Your task to perform on an android device: Open network settings Image 0: 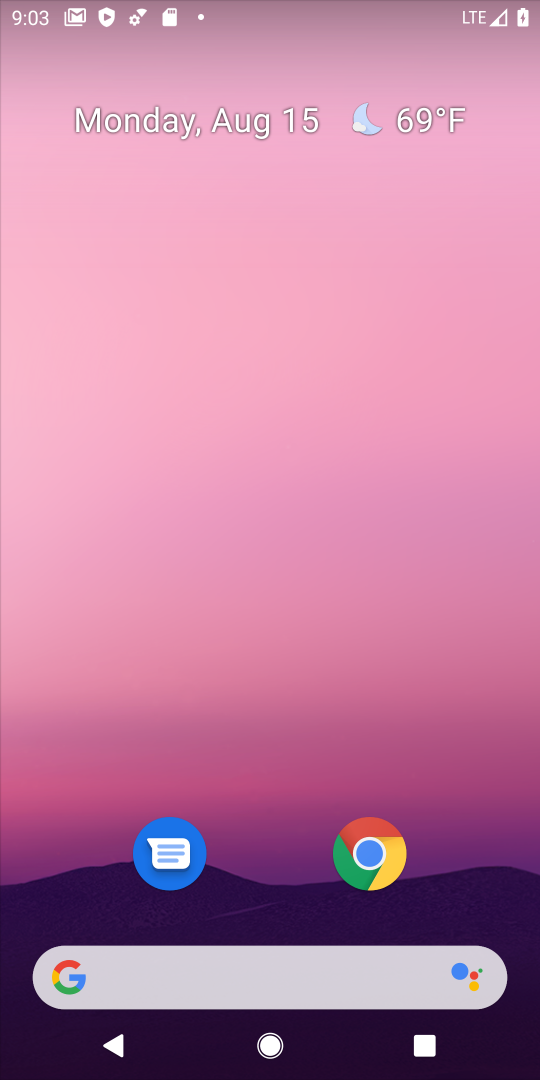
Step 0: drag from (338, 697) to (352, 647)
Your task to perform on an android device: Open network settings Image 1: 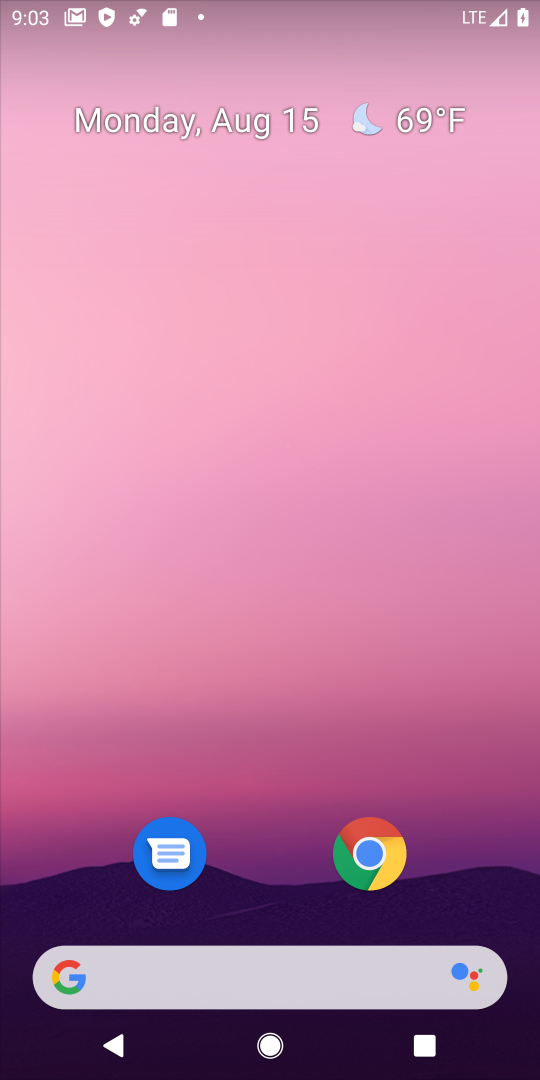
Step 1: drag from (166, 892) to (386, 131)
Your task to perform on an android device: Open network settings Image 2: 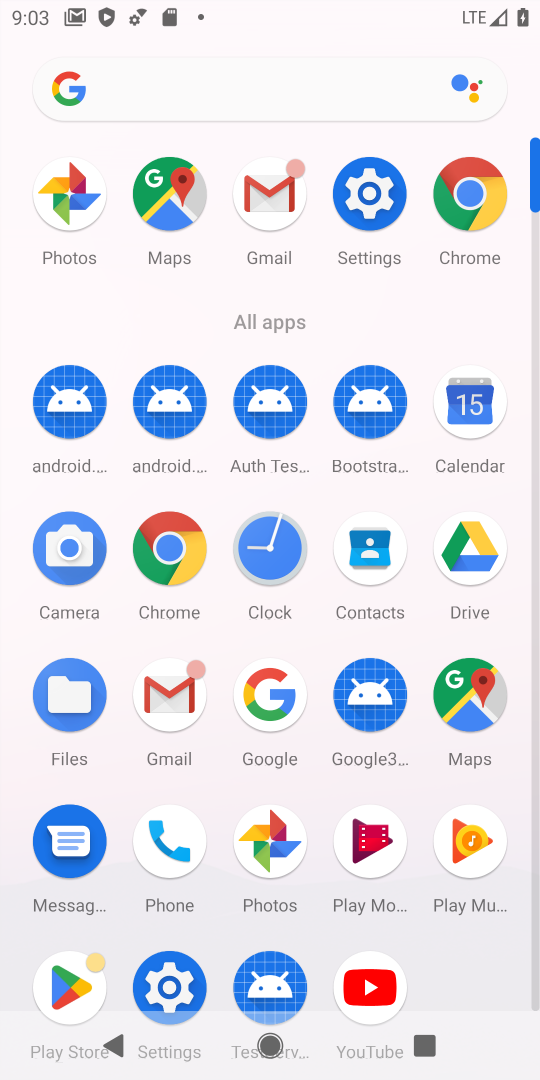
Step 2: drag from (365, 224) to (302, 166)
Your task to perform on an android device: Open network settings Image 3: 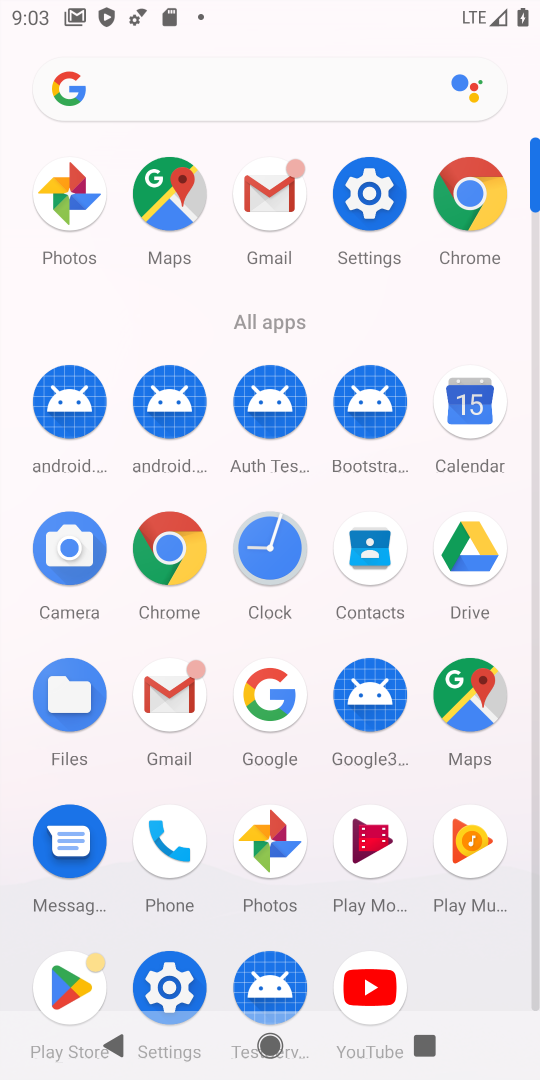
Step 3: click (387, 192)
Your task to perform on an android device: Open network settings Image 4: 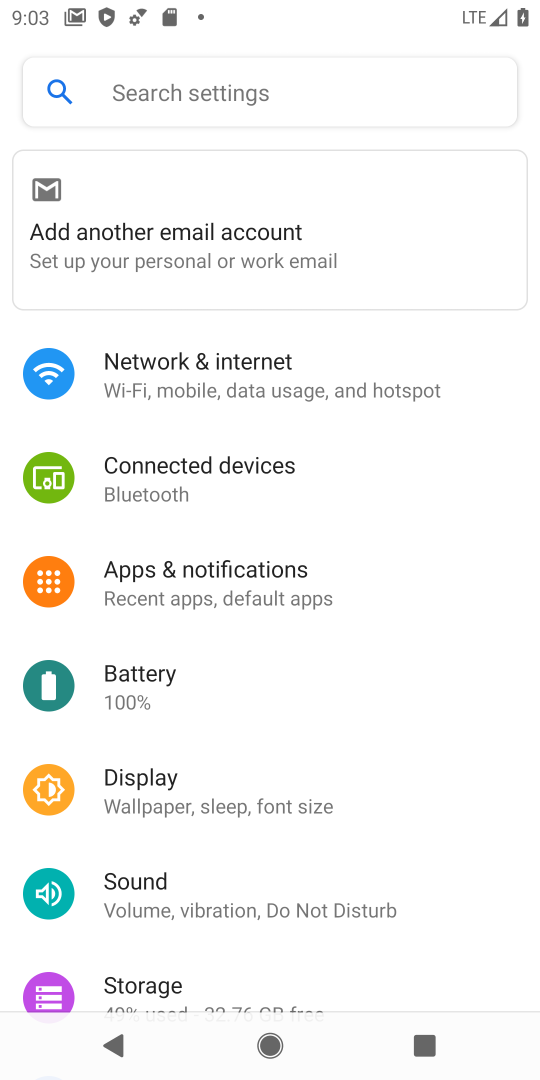
Step 4: click (85, 352)
Your task to perform on an android device: Open network settings Image 5: 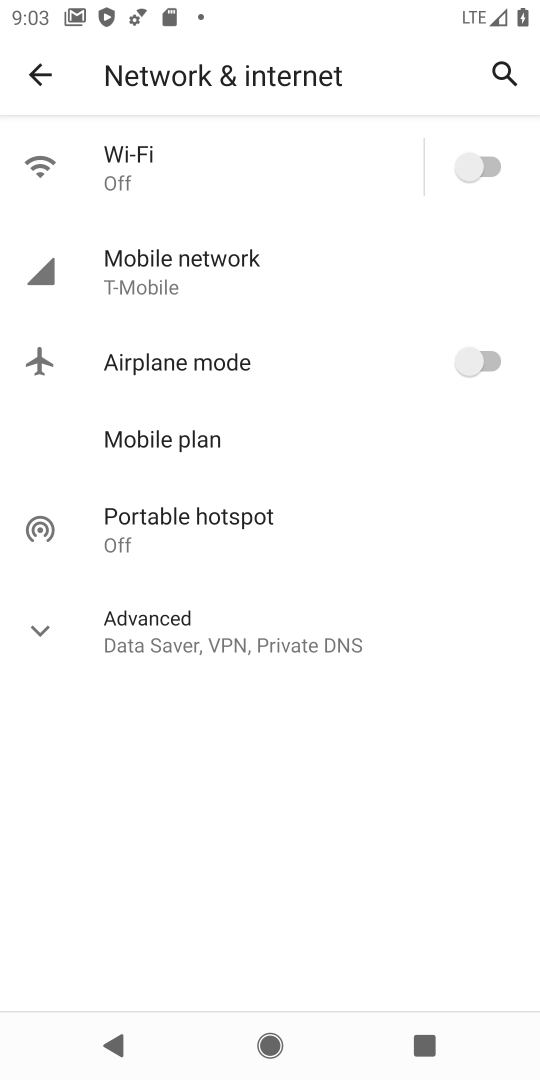
Step 5: task complete